Your task to perform on an android device: open a new tab in the chrome app Image 0: 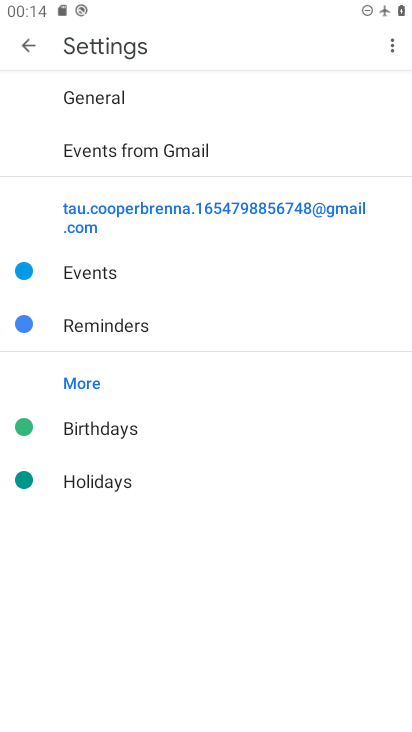
Step 0: press home button
Your task to perform on an android device: open a new tab in the chrome app Image 1: 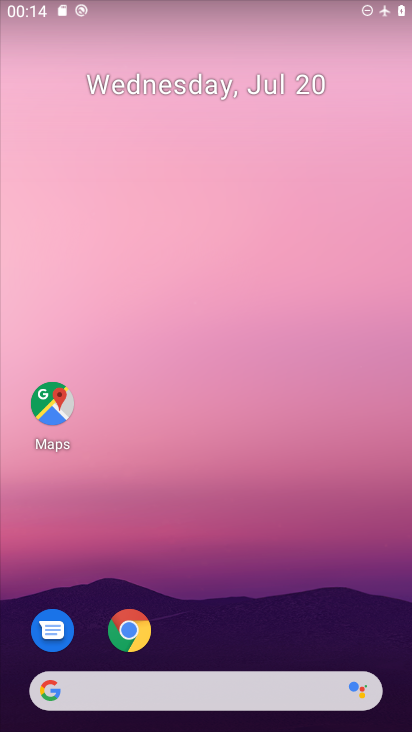
Step 1: click (134, 625)
Your task to perform on an android device: open a new tab in the chrome app Image 2: 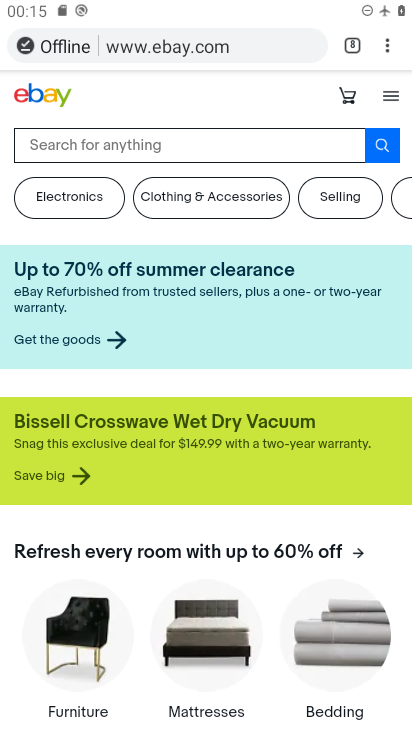
Step 2: click (350, 40)
Your task to perform on an android device: open a new tab in the chrome app Image 3: 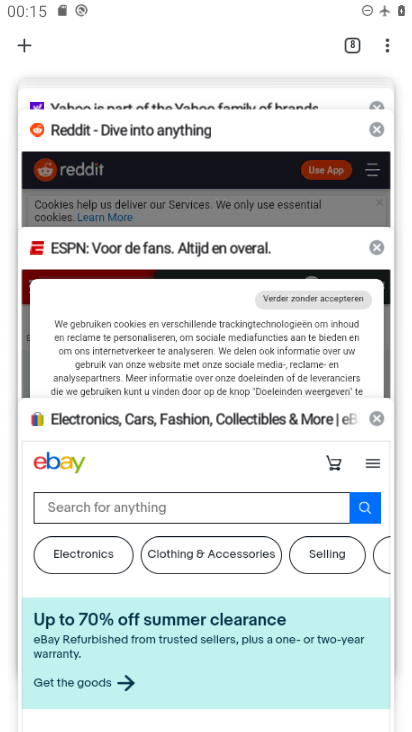
Step 3: click (29, 43)
Your task to perform on an android device: open a new tab in the chrome app Image 4: 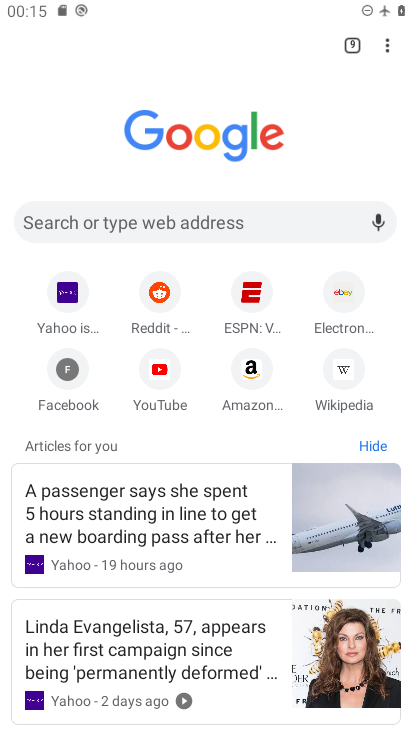
Step 4: task complete